Your task to perform on an android device: turn off javascript in the chrome app Image 0: 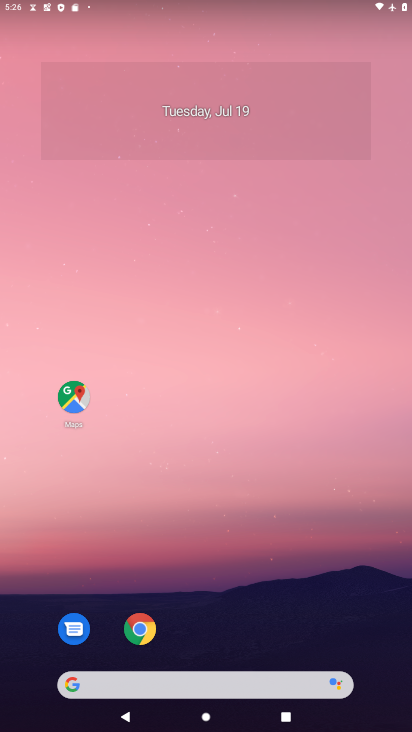
Step 0: drag from (243, 580) to (130, 0)
Your task to perform on an android device: turn off javascript in the chrome app Image 1: 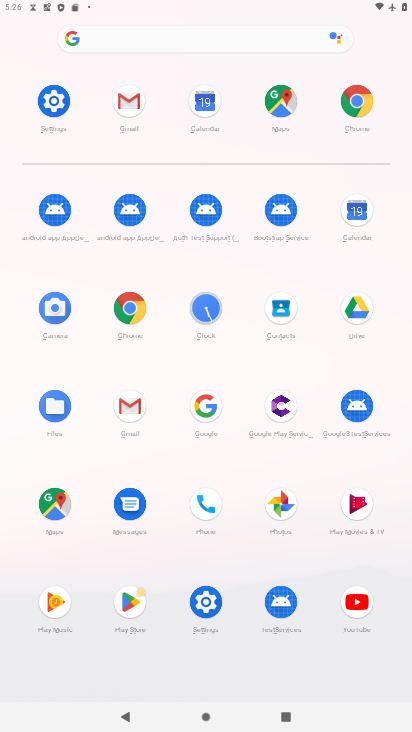
Step 1: click (352, 105)
Your task to perform on an android device: turn off javascript in the chrome app Image 2: 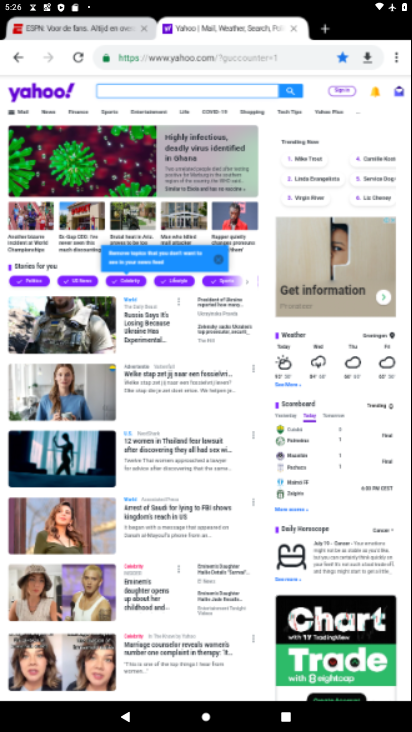
Step 2: click (395, 56)
Your task to perform on an android device: turn off javascript in the chrome app Image 3: 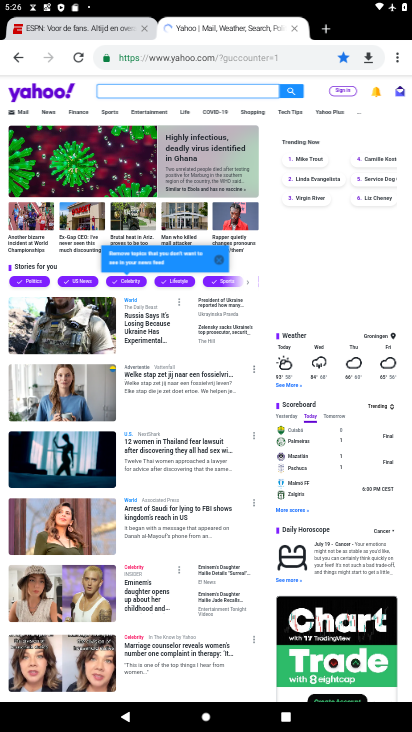
Step 3: drag from (395, 56) to (286, 425)
Your task to perform on an android device: turn off javascript in the chrome app Image 4: 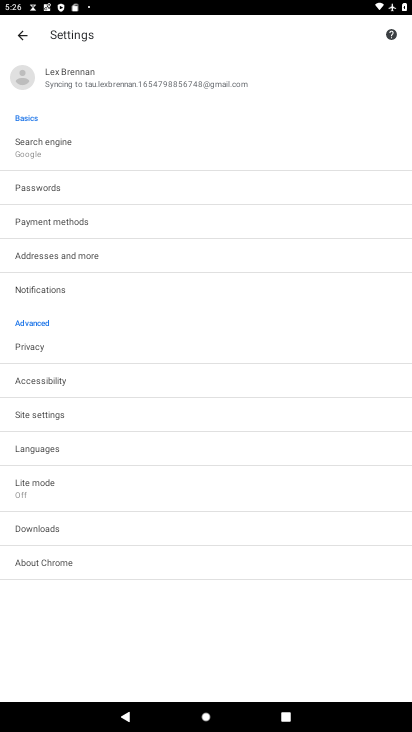
Step 4: click (43, 415)
Your task to perform on an android device: turn off javascript in the chrome app Image 5: 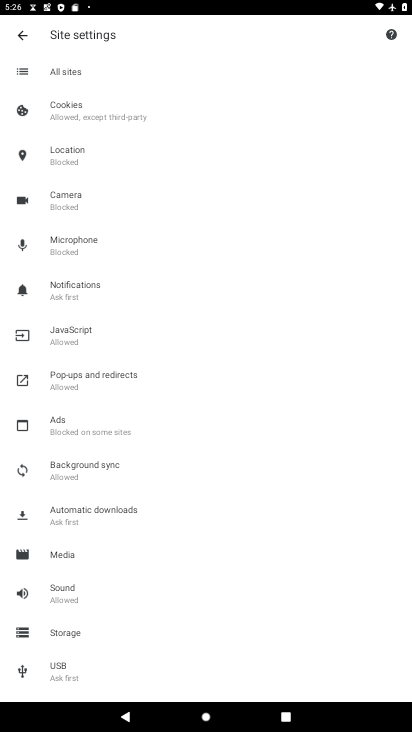
Step 5: click (74, 338)
Your task to perform on an android device: turn off javascript in the chrome app Image 6: 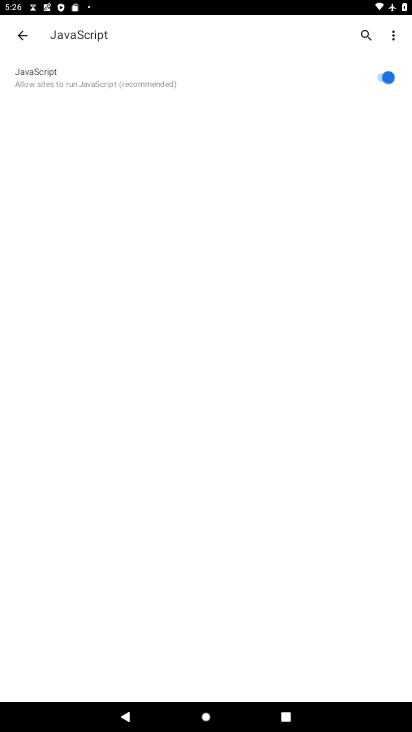
Step 6: click (382, 74)
Your task to perform on an android device: turn off javascript in the chrome app Image 7: 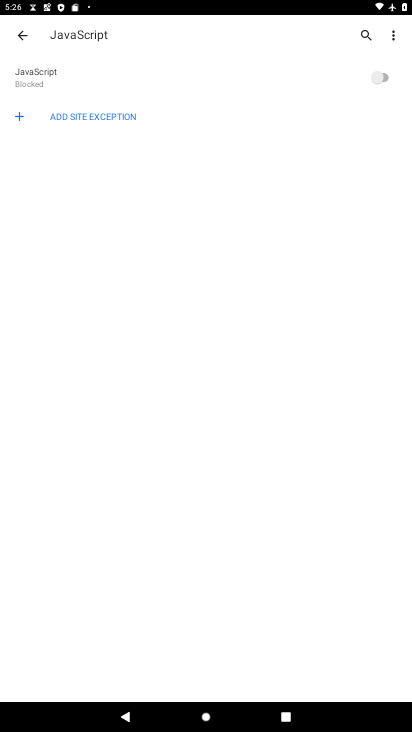
Step 7: task complete